Your task to perform on an android device: check storage Image 0: 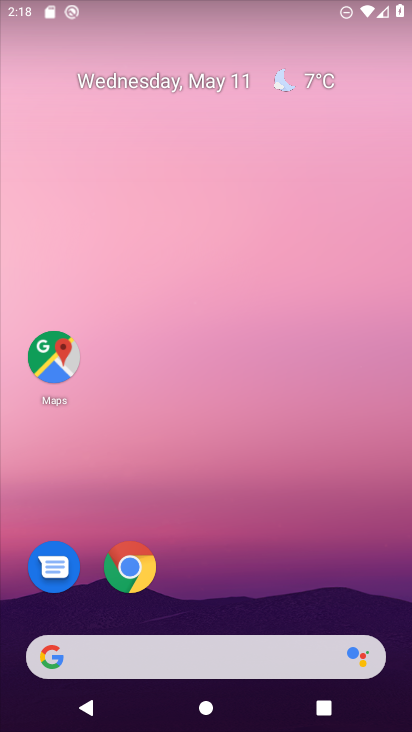
Step 0: drag from (371, 604) to (279, 286)
Your task to perform on an android device: check storage Image 1: 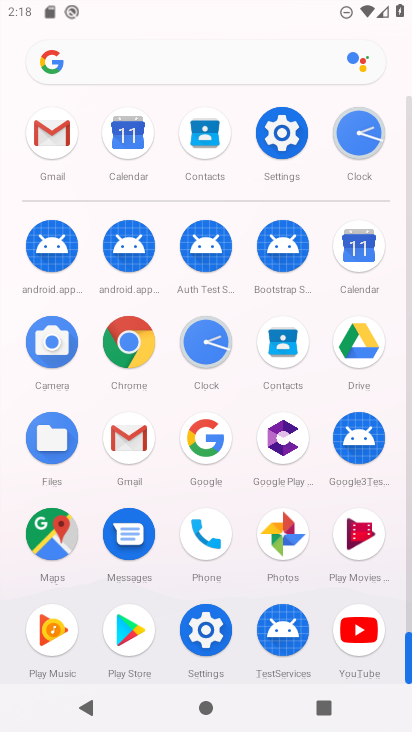
Step 1: click (282, 141)
Your task to perform on an android device: check storage Image 2: 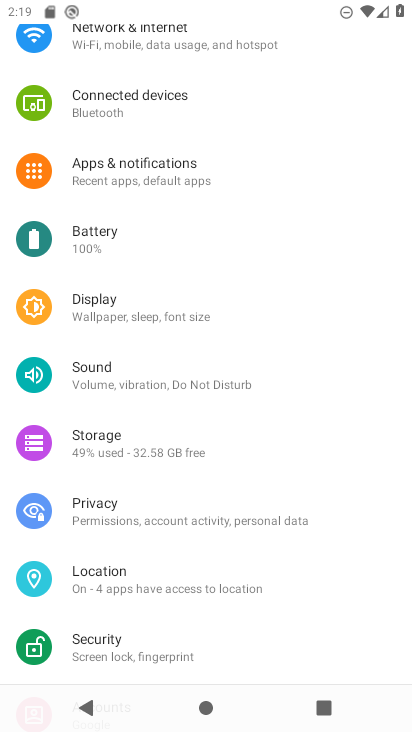
Step 2: click (97, 450)
Your task to perform on an android device: check storage Image 3: 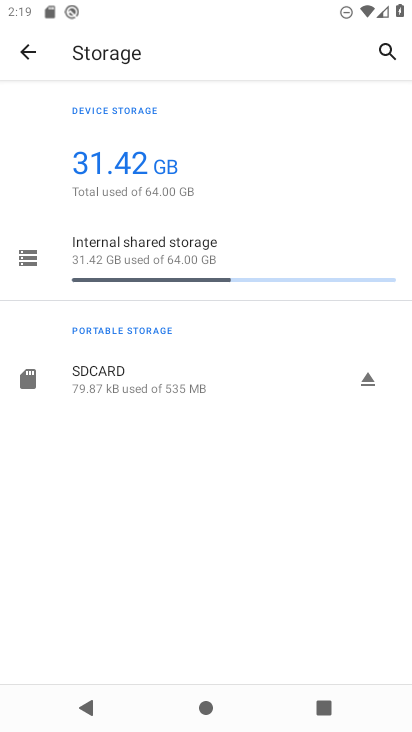
Step 3: task complete